Your task to perform on an android device: Search for pizza restaurants on Maps Image 0: 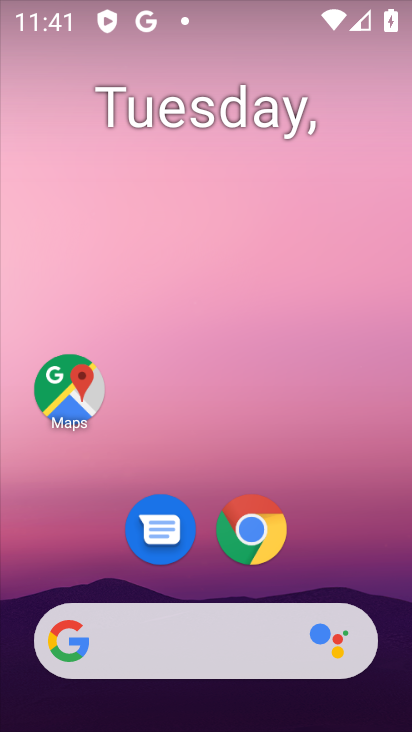
Step 0: click (74, 386)
Your task to perform on an android device: Search for pizza restaurants on Maps Image 1: 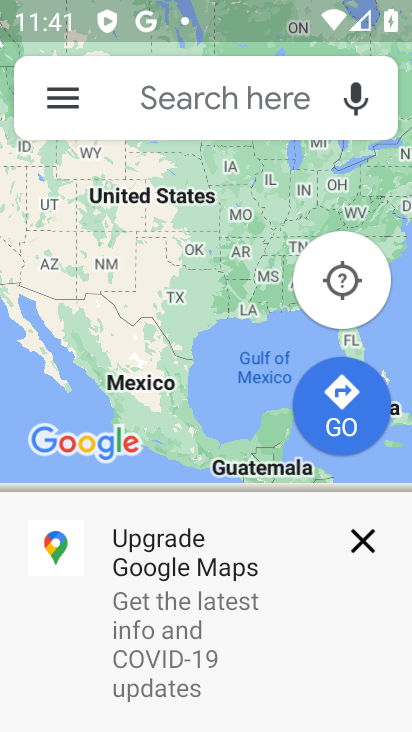
Step 1: click (261, 124)
Your task to perform on an android device: Search for pizza restaurants on Maps Image 2: 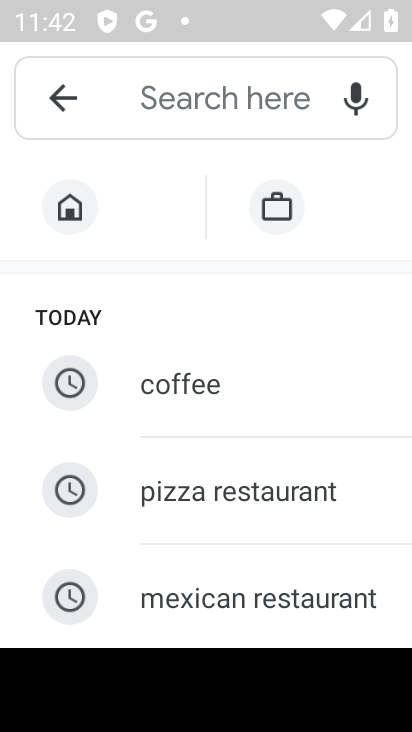
Step 2: type "Pizza restaurants"
Your task to perform on an android device: Search for pizza restaurants on Maps Image 3: 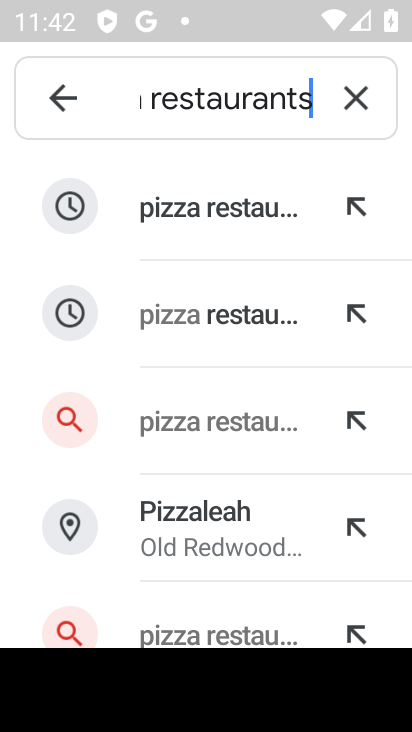
Step 3: click (207, 232)
Your task to perform on an android device: Search for pizza restaurants on Maps Image 4: 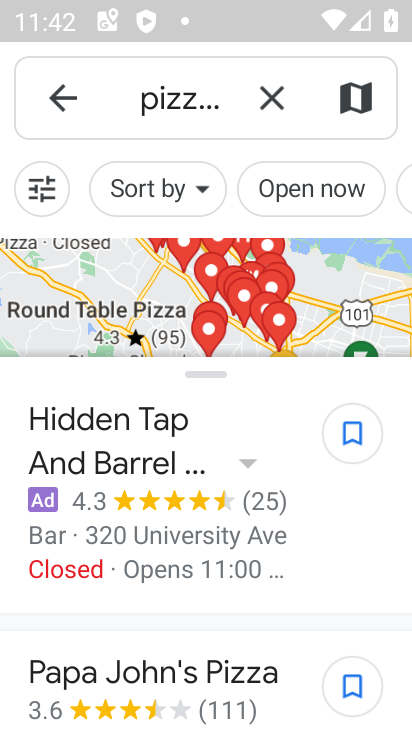
Step 4: task complete